Your task to perform on an android device: open a new tab in the chrome app Image 0: 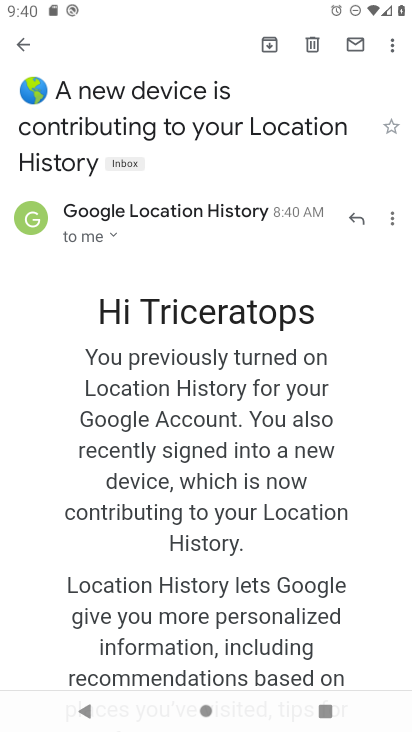
Step 0: press home button
Your task to perform on an android device: open a new tab in the chrome app Image 1: 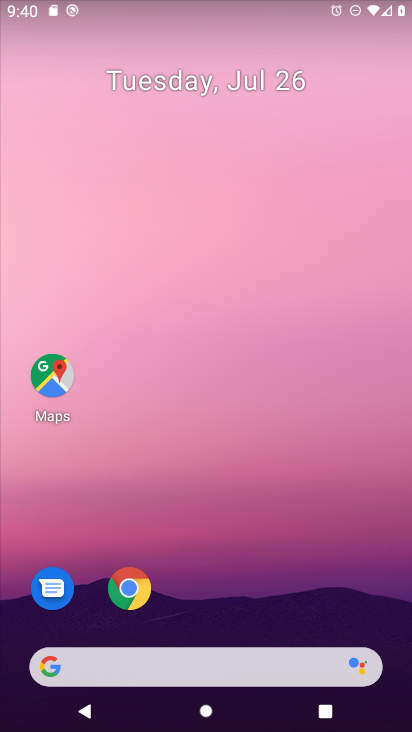
Step 1: click (130, 596)
Your task to perform on an android device: open a new tab in the chrome app Image 2: 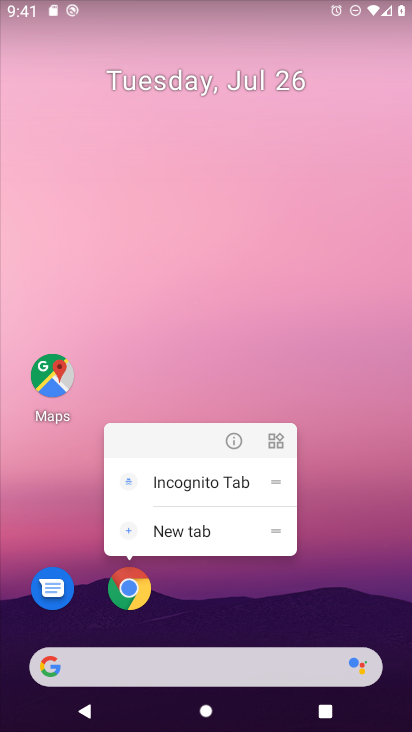
Step 2: click (252, 280)
Your task to perform on an android device: open a new tab in the chrome app Image 3: 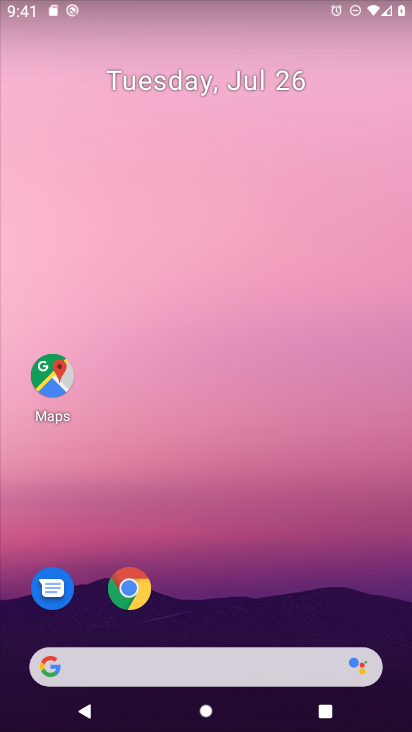
Step 3: click (143, 595)
Your task to perform on an android device: open a new tab in the chrome app Image 4: 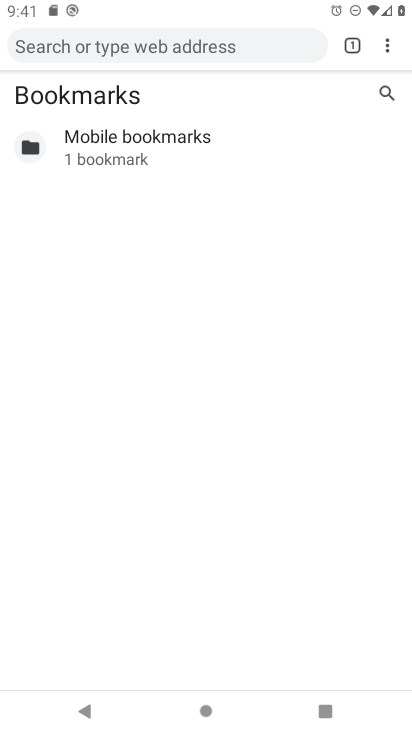
Step 4: drag from (360, 47) to (352, 220)
Your task to perform on an android device: open a new tab in the chrome app Image 5: 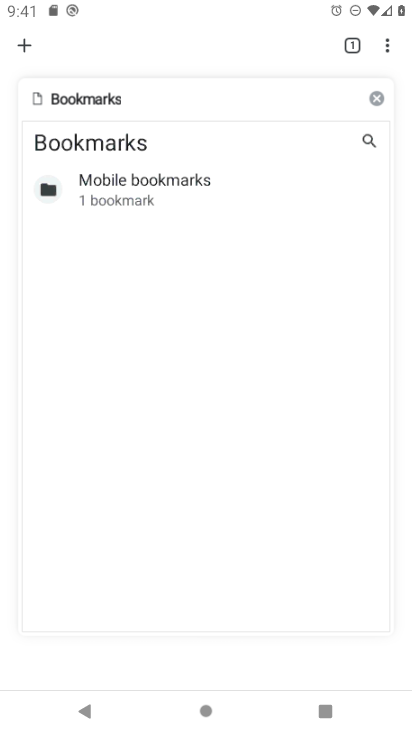
Step 5: click (26, 50)
Your task to perform on an android device: open a new tab in the chrome app Image 6: 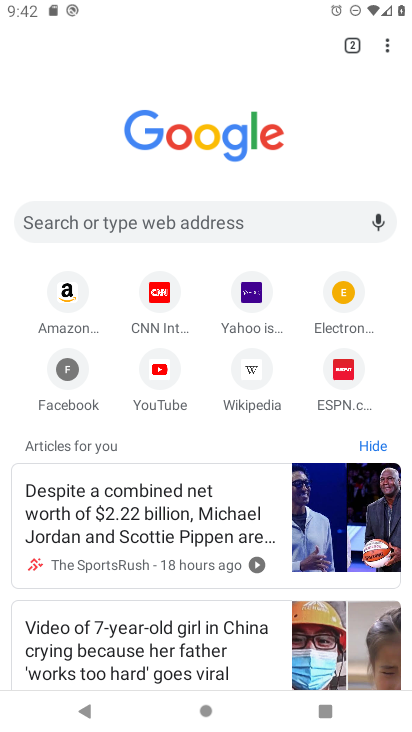
Step 6: task complete